Your task to perform on an android device: open app "Instagram" (install if not already installed) and enter user name: "nobler@yahoo.com" and password: "foraging" Image 0: 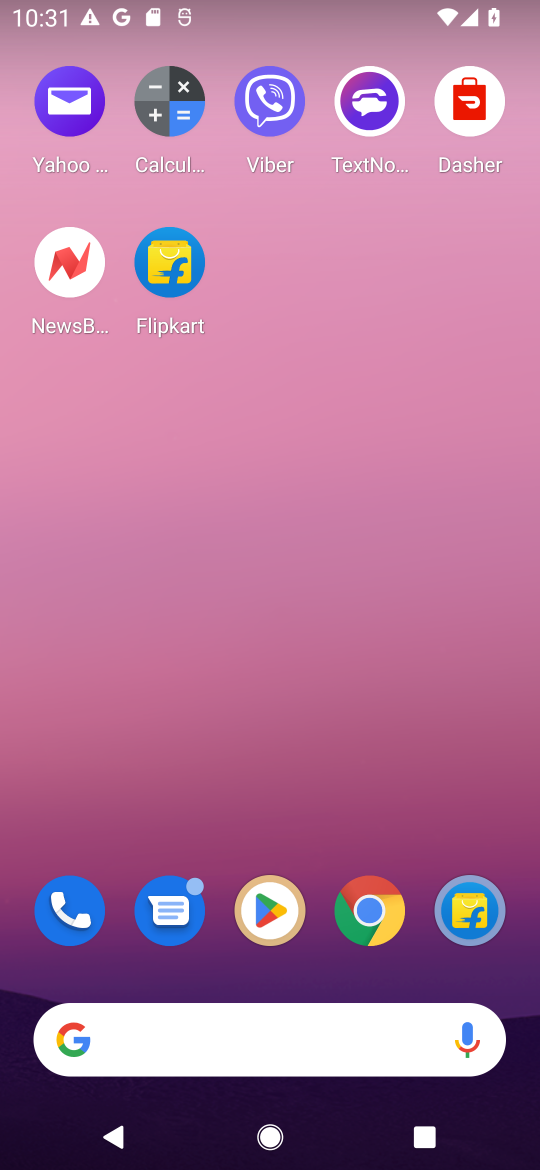
Step 0: click (287, 891)
Your task to perform on an android device: open app "Instagram" (install if not already installed) and enter user name: "nobler@yahoo.com" and password: "foraging" Image 1: 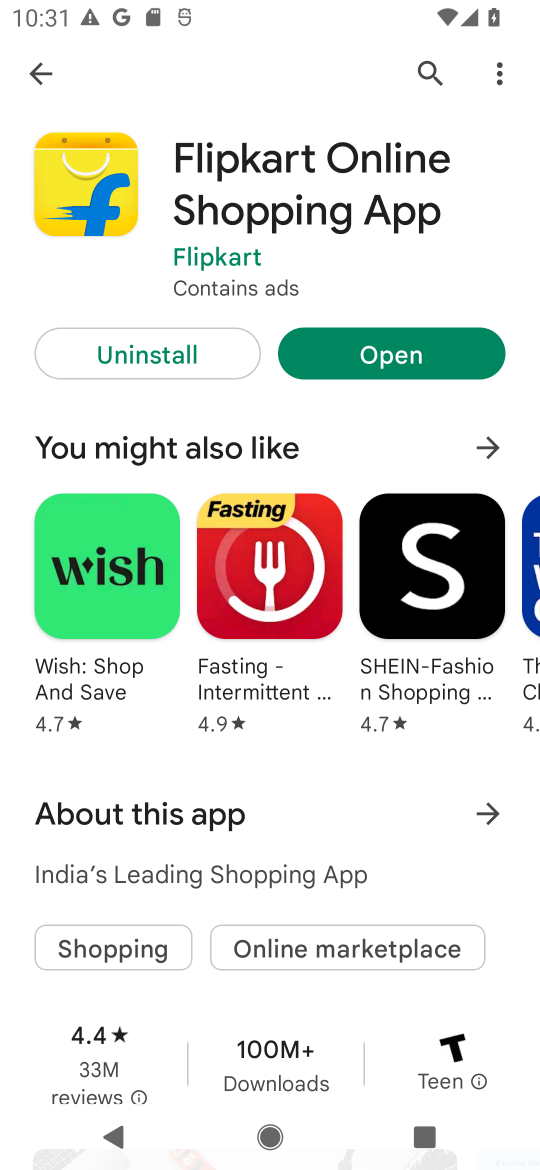
Step 1: click (418, 81)
Your task to perform on an android device: open app "Instagram" (install if not already installed) and enter user name: "nobler@yahoo.com" and password: "foraging" Image 2: 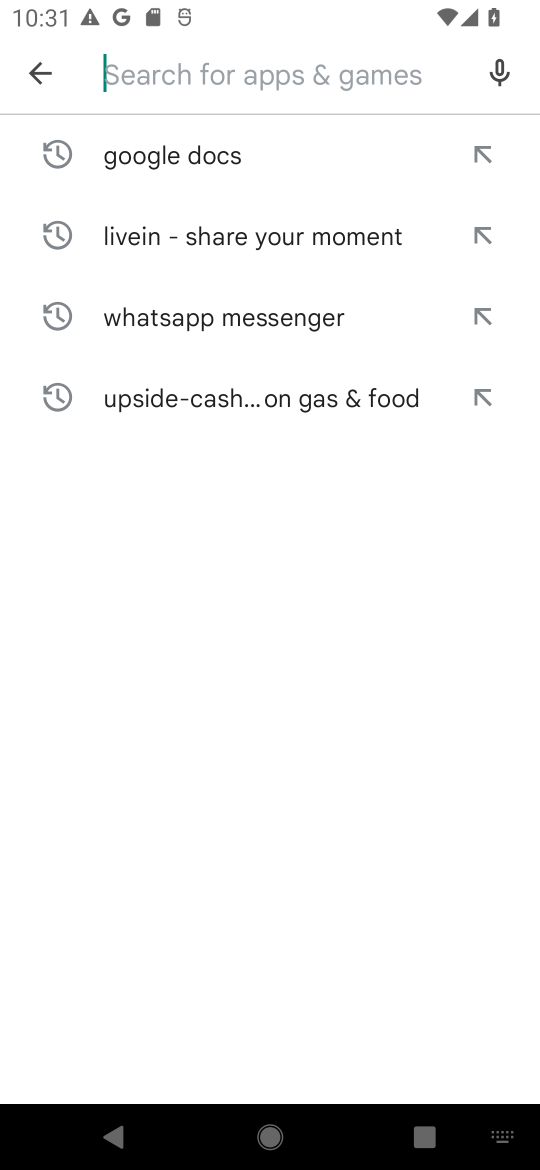
Step 2: type "Instagram"
Your task to perform on an android device: open app "Instagram" (install if not already installed) and enter user name: "nobler@yahoo.com" and password: "foraging" Image 3: 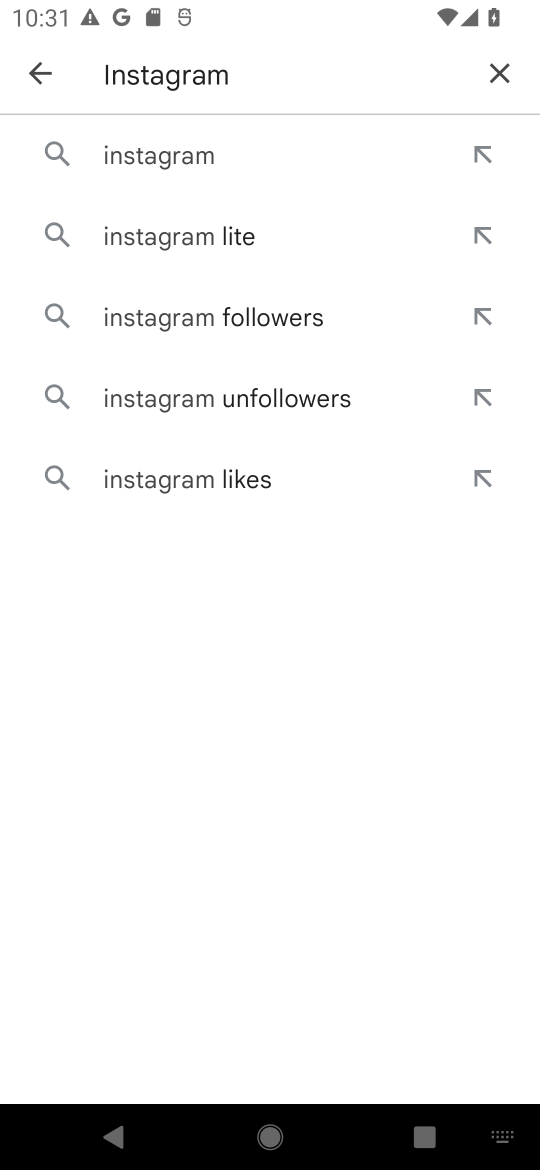
Step 3: click (278, 158)
Your task to perform on an android device: open app "Instagram" (install if not already installed) and enter user name: "nobler@yahoo.com" and password: "foraging" Image 4: 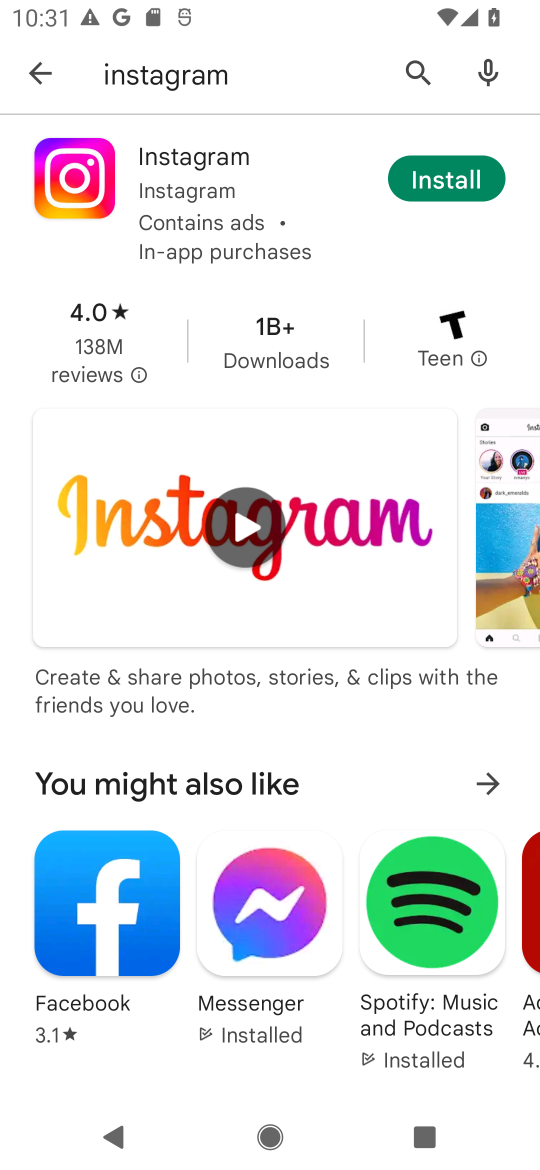
Step 4: click (432, 192)
Your task to perform on an android device: open app "Instagram" (install if not already installed) and enter user name: "nobler@yahoo.com" and password: "foraging" Image 5: 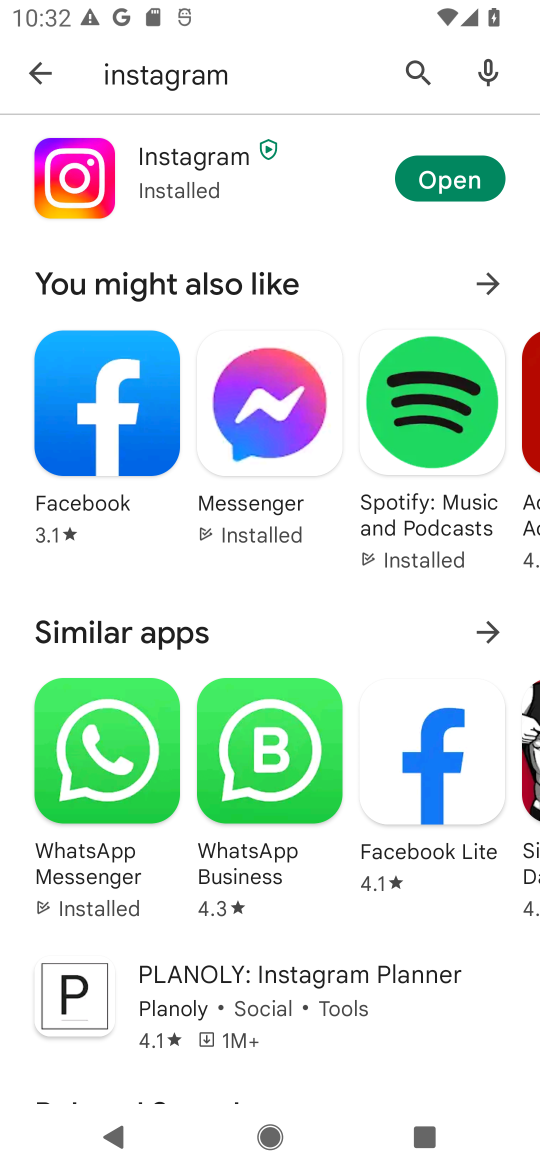
Step 5: click (432, 192)
Your task to perform on an android device: open app "Instagram" (install if not already installed) and enter user name: "nobler@yahoo.com" and password: "foraging" Image 6: 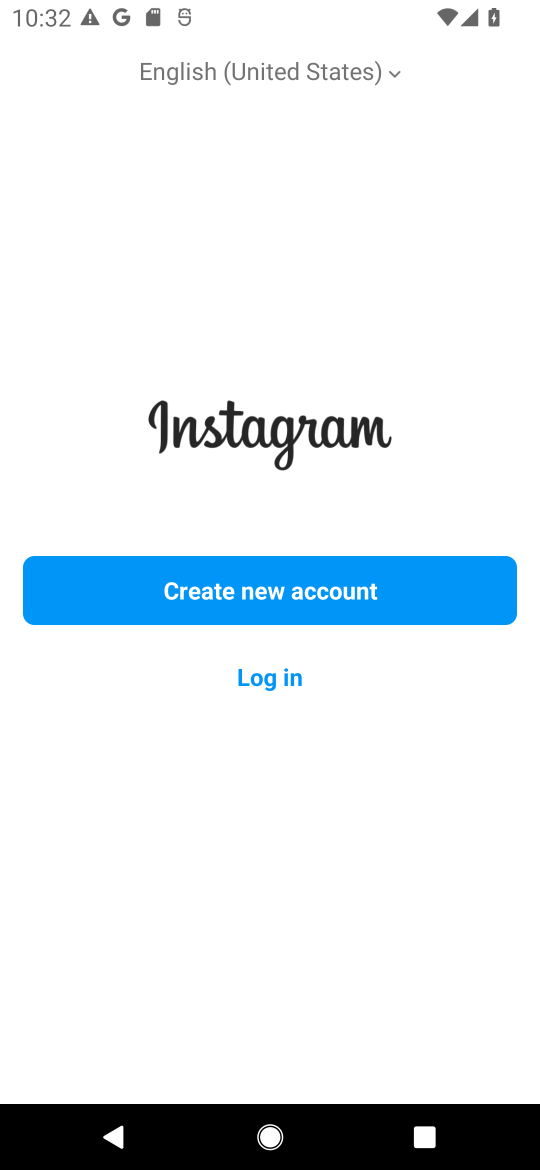
Step 6: click (309, 678)
Your task to perform on an android device: open app "Instagram" (install if not already installed) and enter user name: "nobler@yahoo.com" and password: "foraging" Image 7: 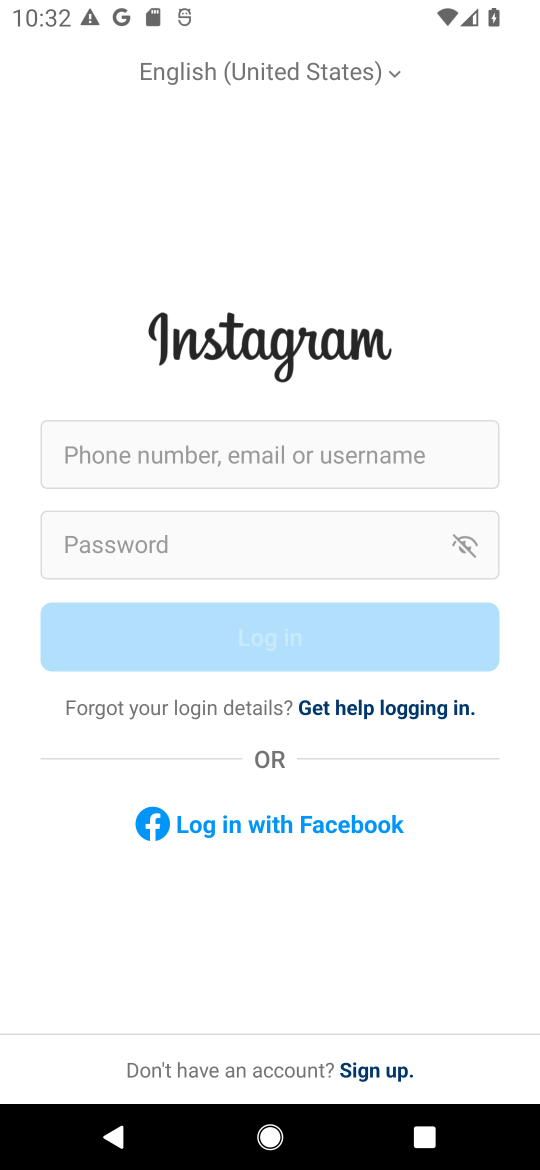
Step 7: click (238, 464)
Your task to perform on an android device: open app "Instagram" (install if not already installed) and enter user name: "nobler@yahoo.com" and password: "foraging" Image 8: 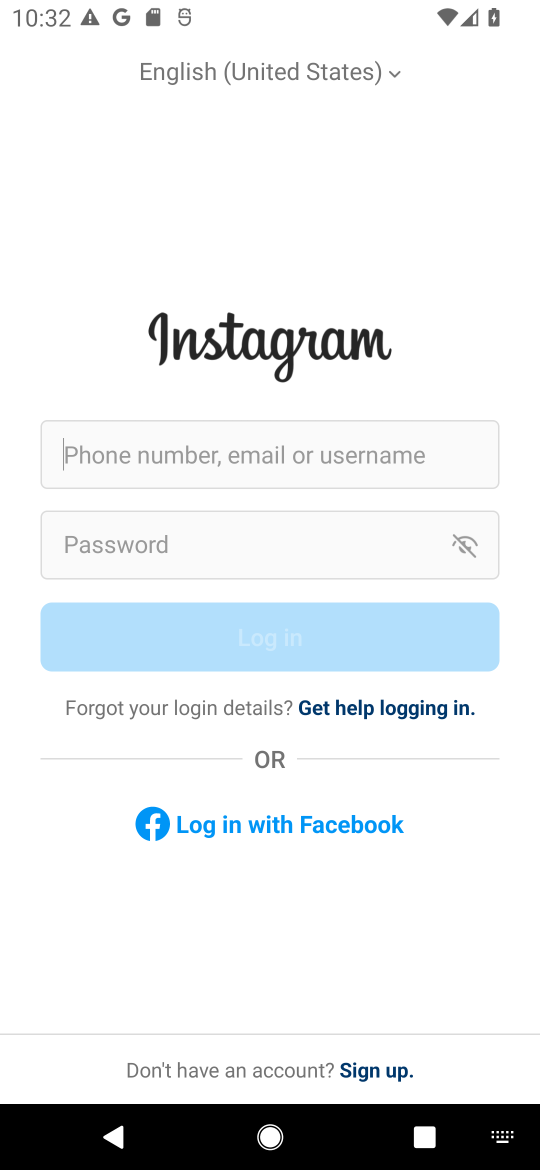
Step 8: click (286, 450)
Your task to perform on an android device: open app "Instagram" (install if not already installed) and enter user name: "nobler@yahoo.com" and password: "foraging" Image 9: 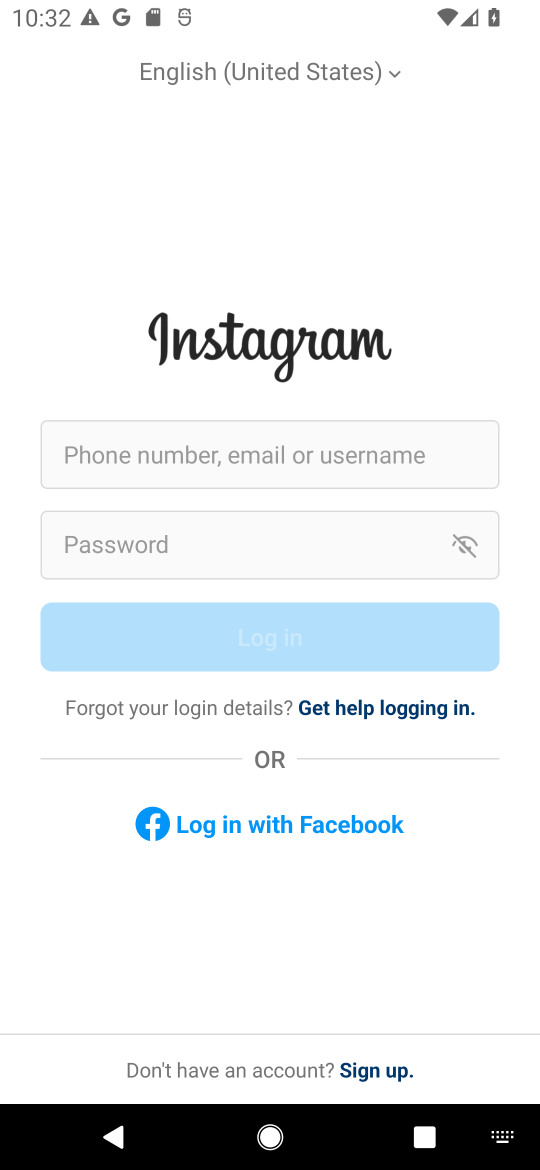
Step 9: type "nobler@yahoo.com"
Your task to perform on an android device: open app "Instagram" (install if not already installed) and enter user name: "nobler@yahoo.com" and password: "foraging" Image 10: 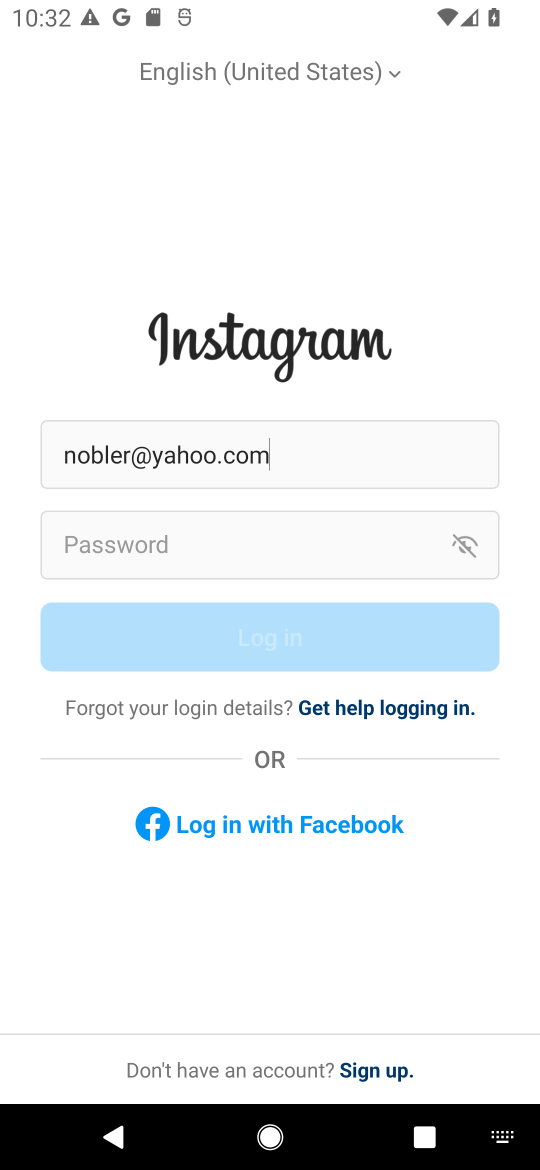
Step 10: type ""
Your task to perform on an android device: open app "Instagram" (install if not already installed) and enter user name: "nobler@yahoo.com" and password: "foraging" Image 11: 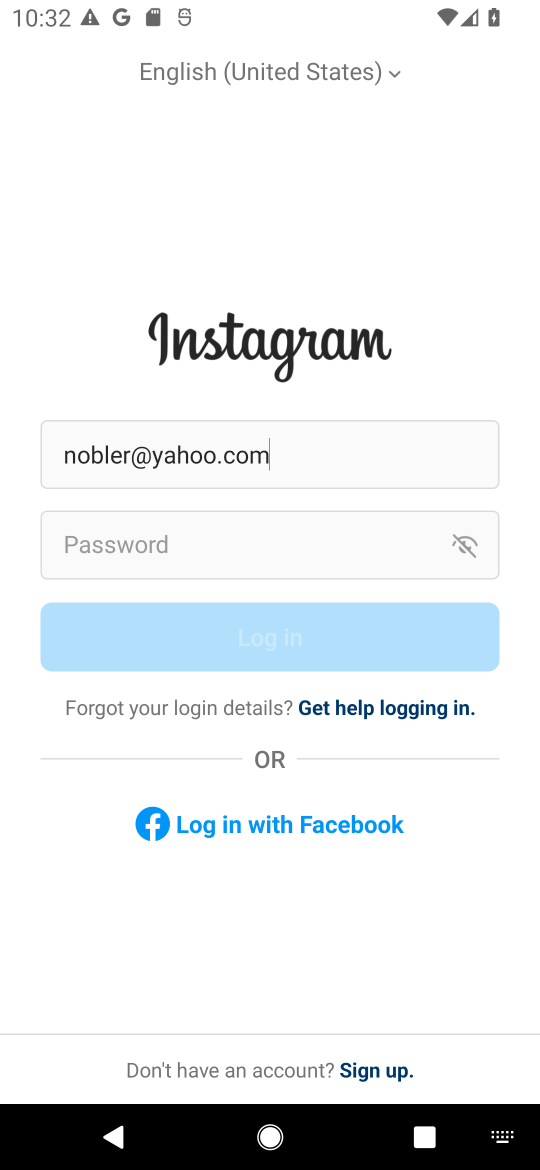
Step 11: click (162, 560)
Your task to perform on an android device: open app "Instagram" (install if not already installed) and enter user name: "nobler@yahoo.com" and password: "foraging" Image 12: 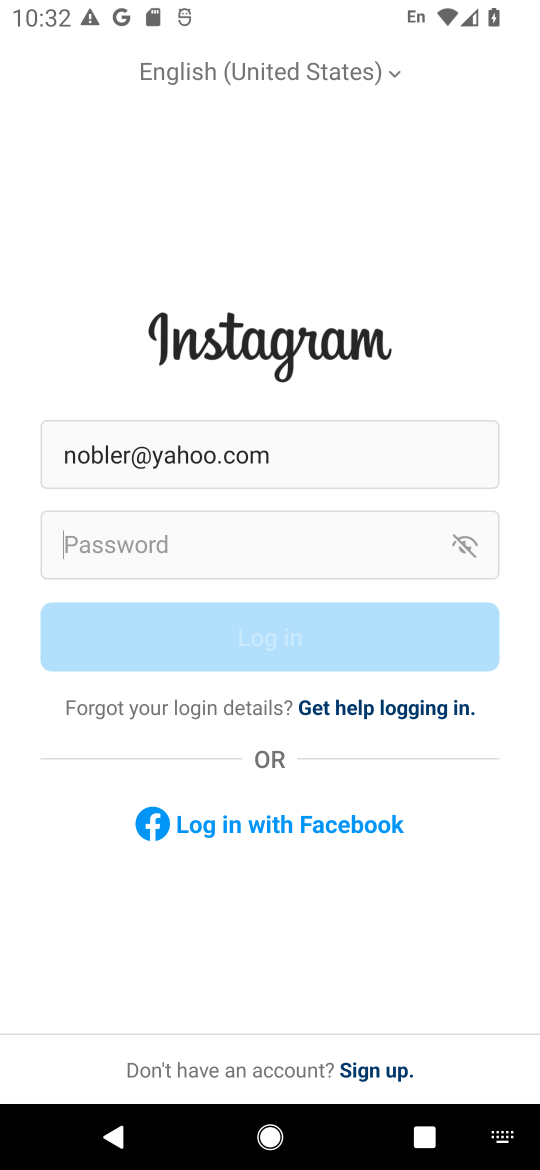
Step 12: type "foraging"
Your task to perform on an android device: open app "Instagram" (install if not already installed) and enter user name: "nobler@yahoo.com" and password: "foraging" Image 13: 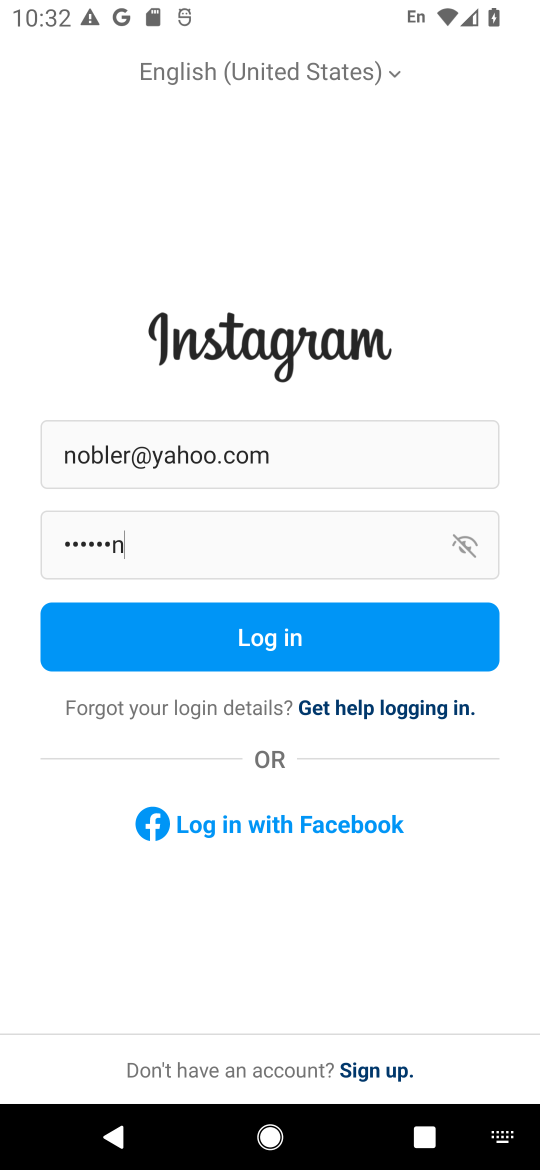
Step 13: type ""
Your task to perform on an android device: open app "Instagram" (install if not already installed) and enter user name: "nobler@yahoo.com" and password: "foraging" Image 14: 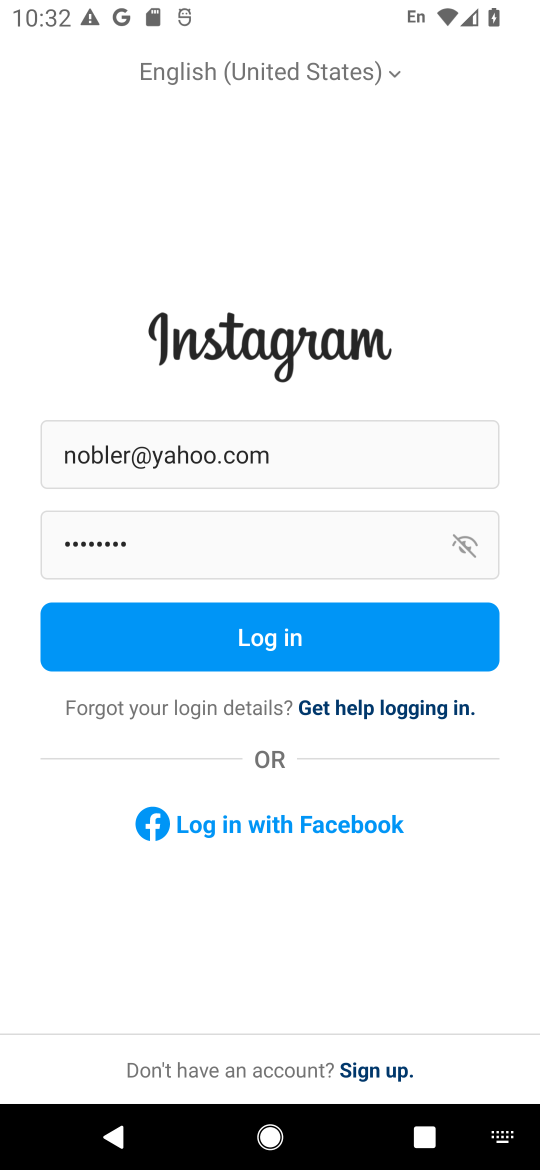
Step 14: click (340, 635)
Your task to perform on an android device: open app "Instagram" (install if not already installed) and enter user name: "nobler@yahoo.com" and password: "foraging" Image 15: 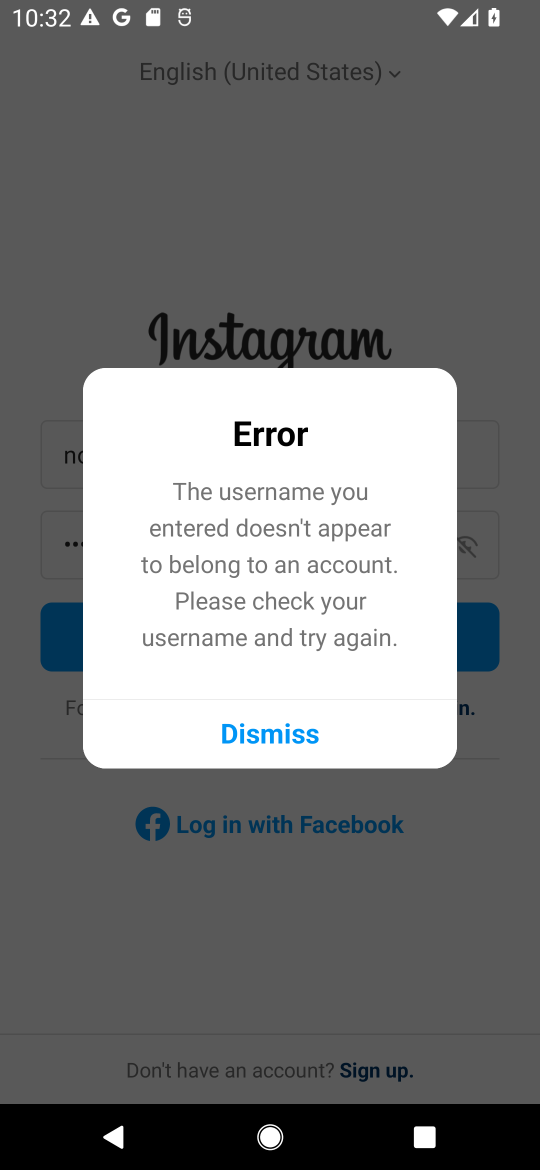
Step 15: task complete